Your task to perform on an android device: Go to Maps Image 0: 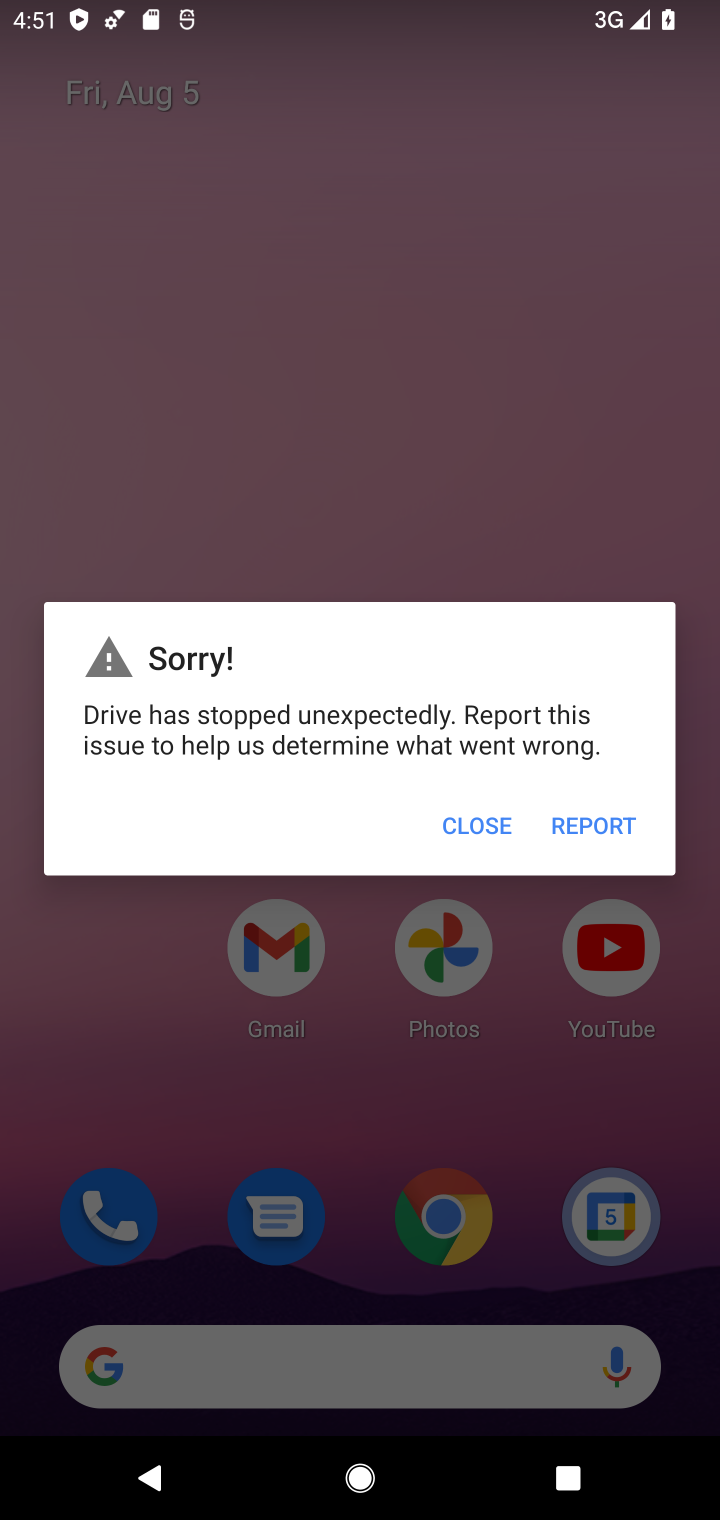
Step 0: press home button
Your task to perform on an android device: Go to Maps Image 1: 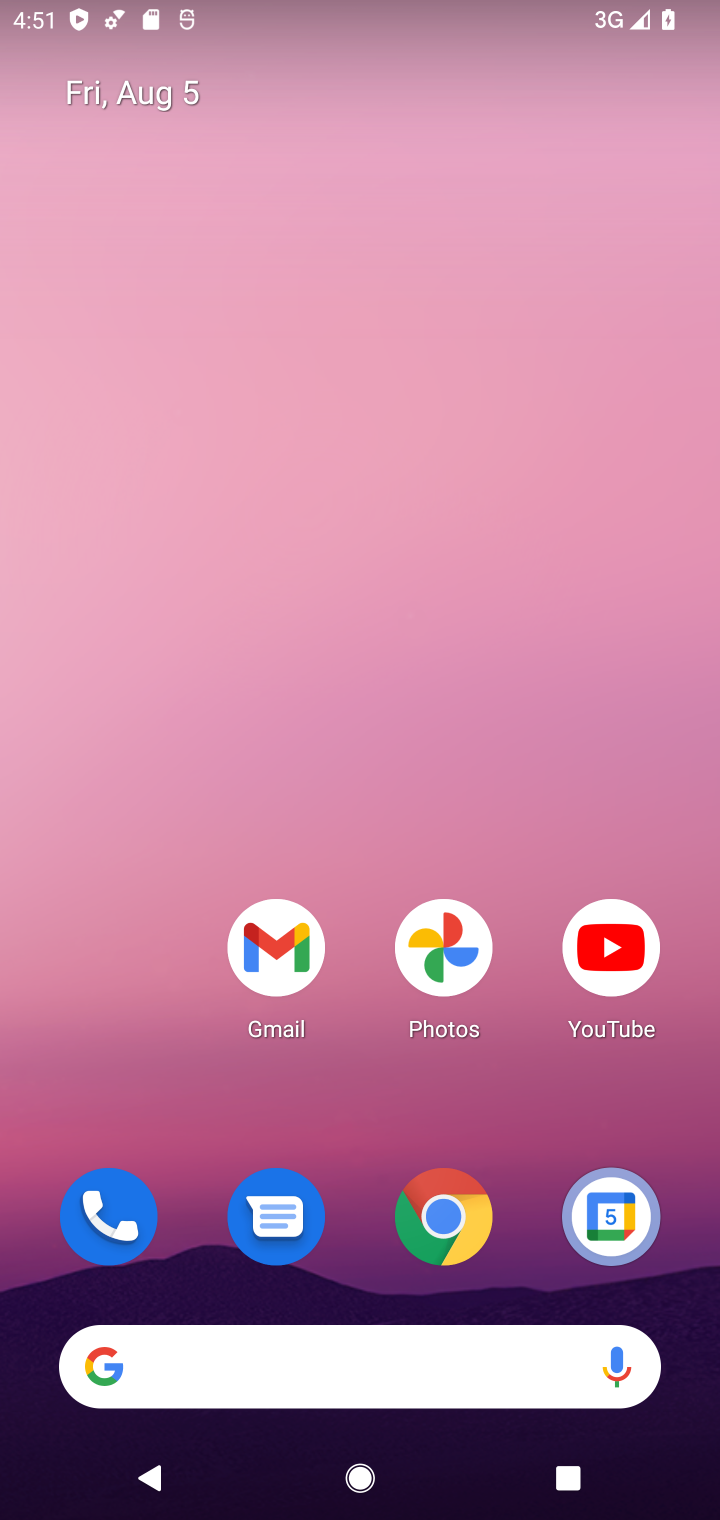
Step 1: drag from (366, 1073) to (301, 4)
Your task to perform on an android device: Go to Maps Image 2: 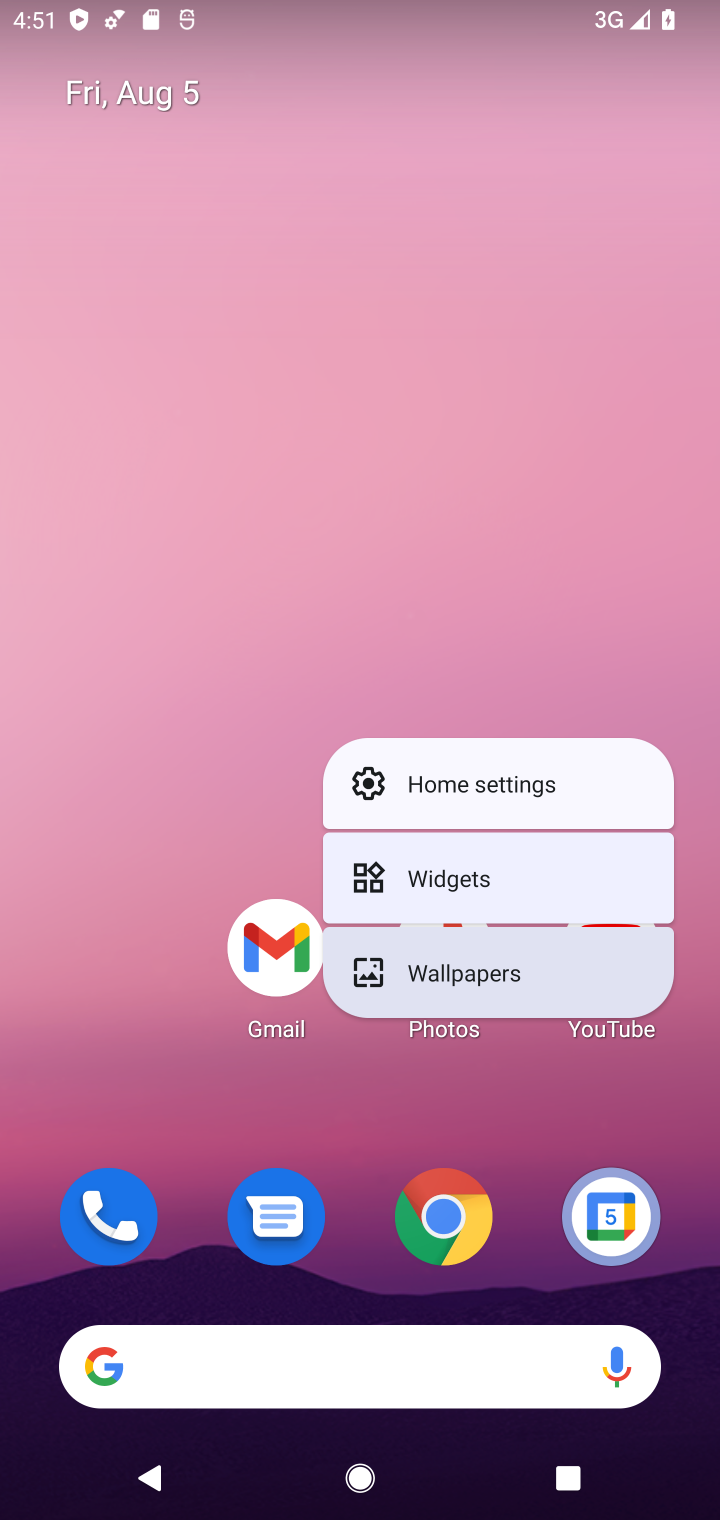
Step 2: click (214, 492)
Your task to perform on an android device: Go to Maps Image 3: 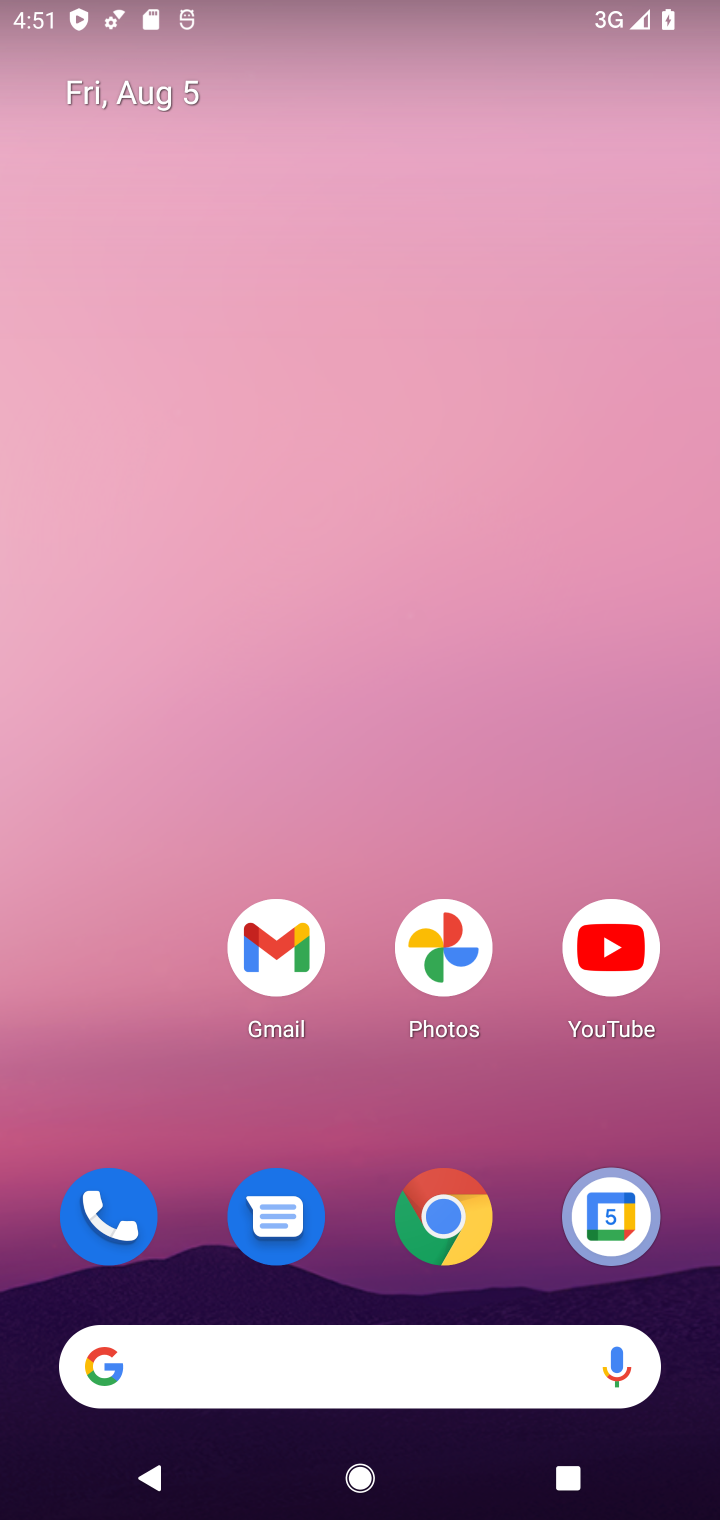
Step 3: drag from (331, 1113) to (275, 107)
Your task to perform on an android device: Go to Maps Image 4: 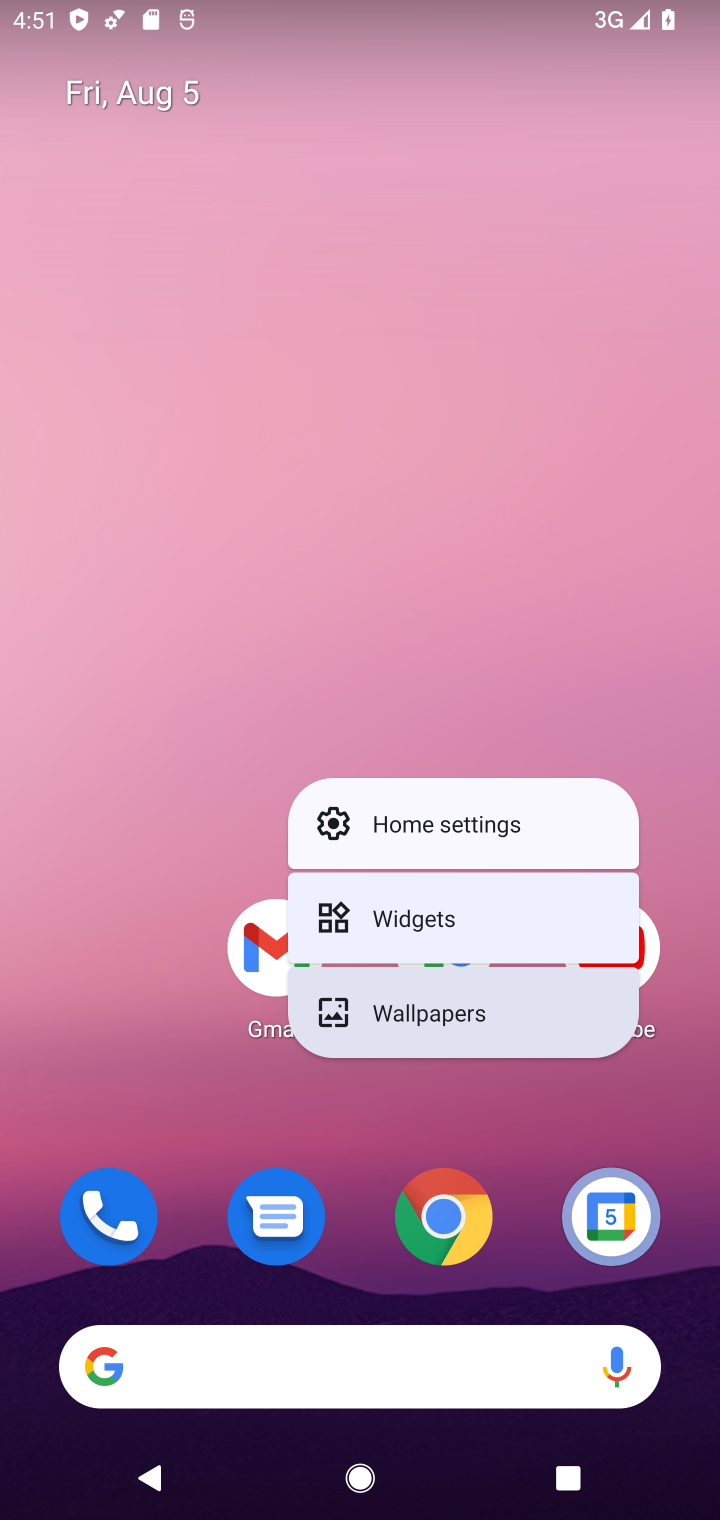
Step 4: click (318, 391)
Your task to perform on an android device: Go to Maps Image 5: 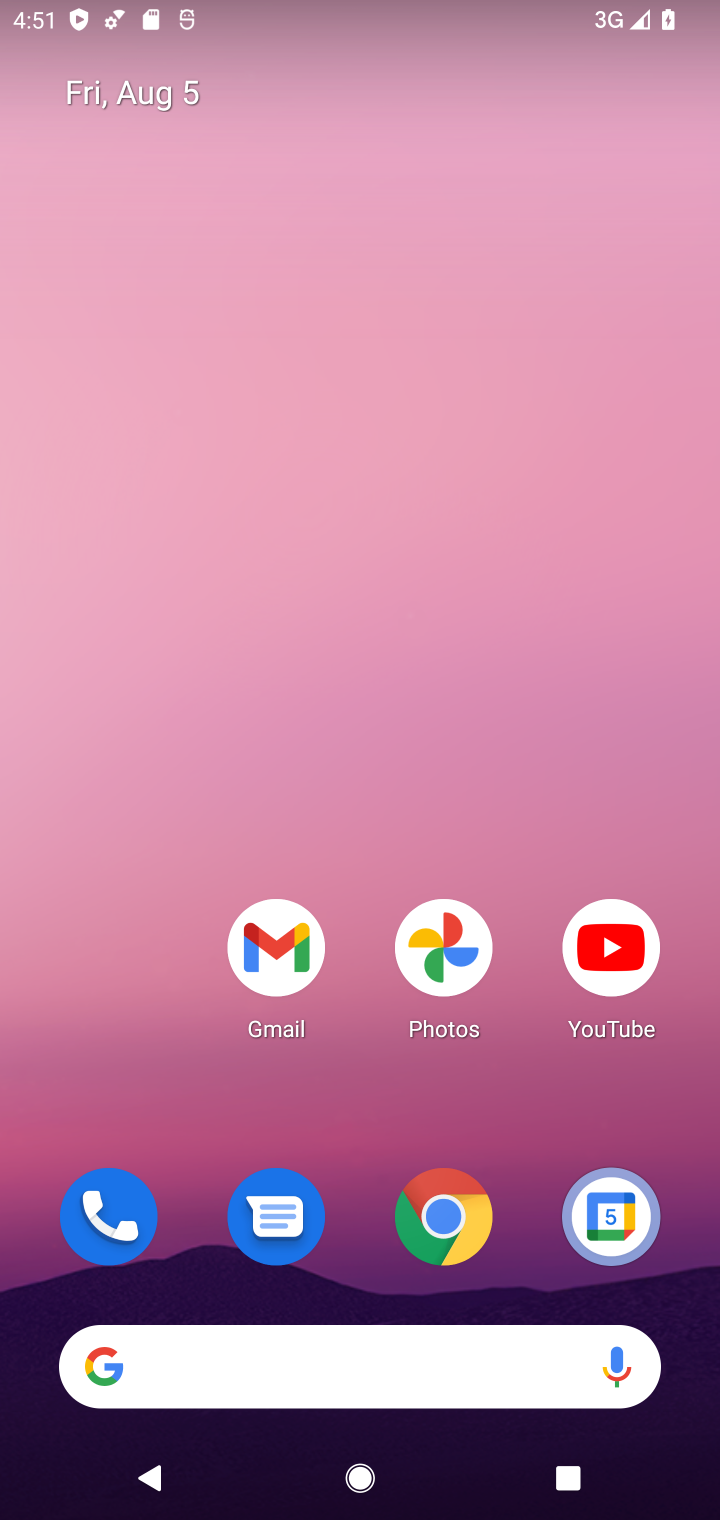
Step 5: drag from (346, 1140) to (310, 440)
Your task to perform on an android device: Go to Maps Image 6: 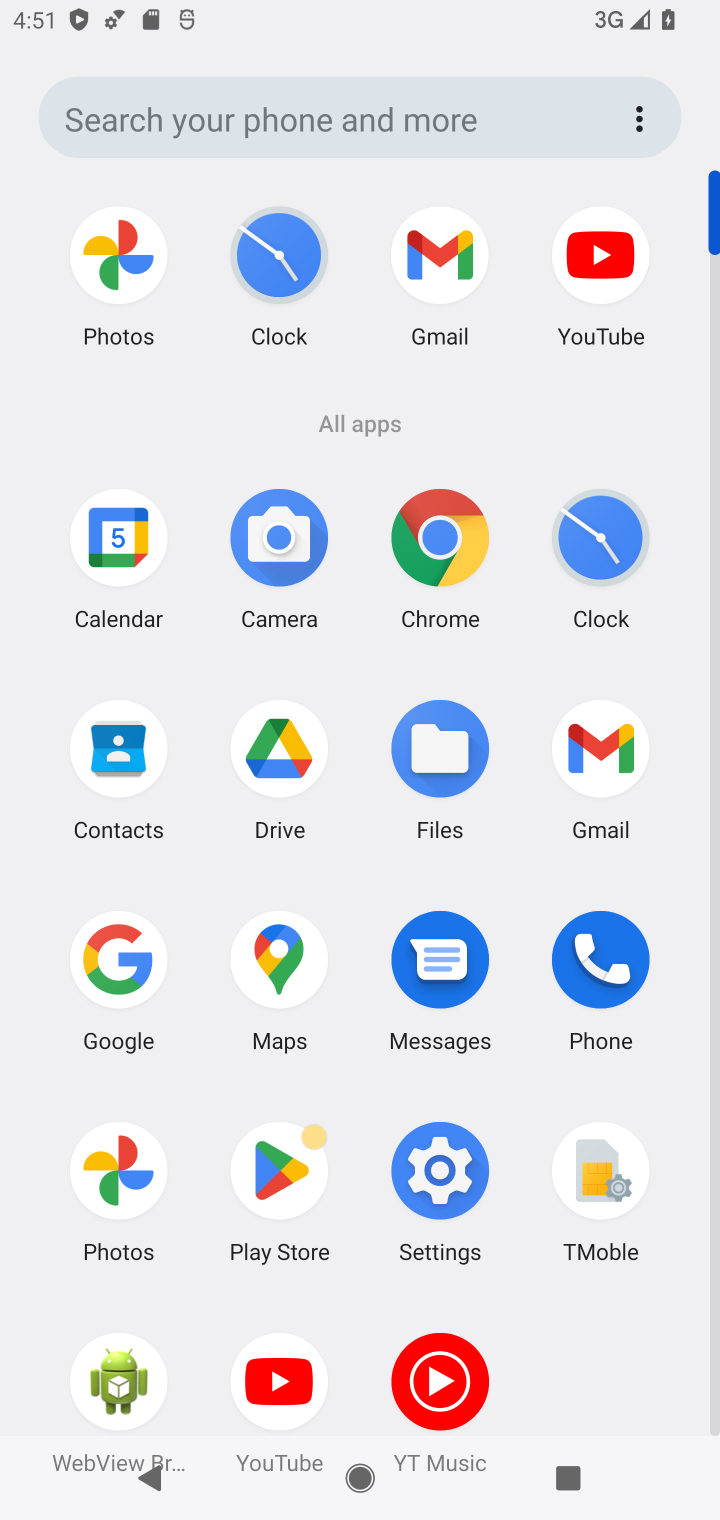
Step 6: click (288, 935)
Your task to perform on an android device: Go to Maps Image 7: 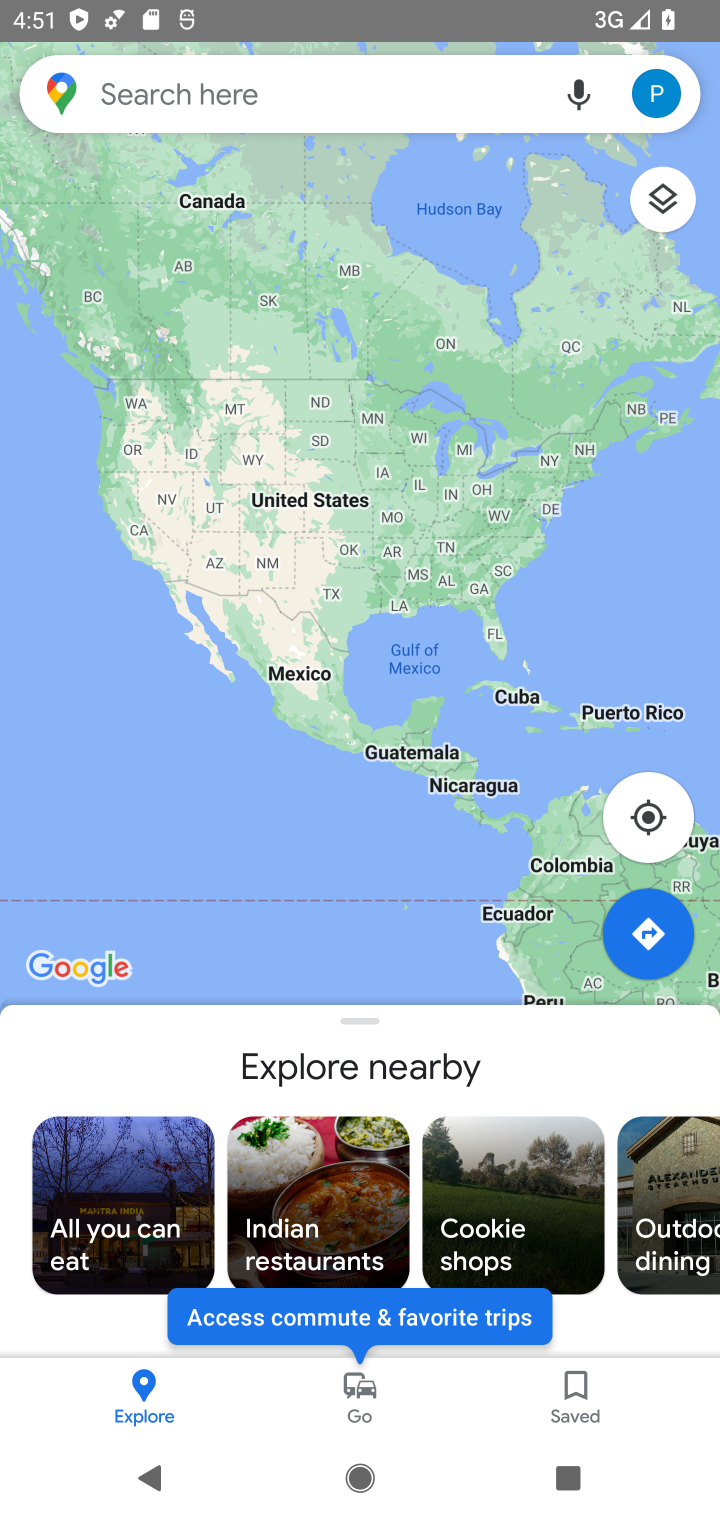
Step 7: task complete